Your task to perform on an android device: toggle airplane mode Image 0: 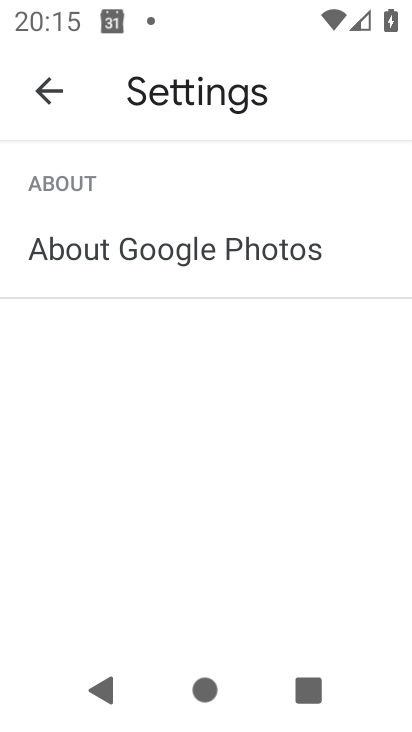
Step 0: press home button
Your task to perform on an android device: toggle airplane mode Image 1: 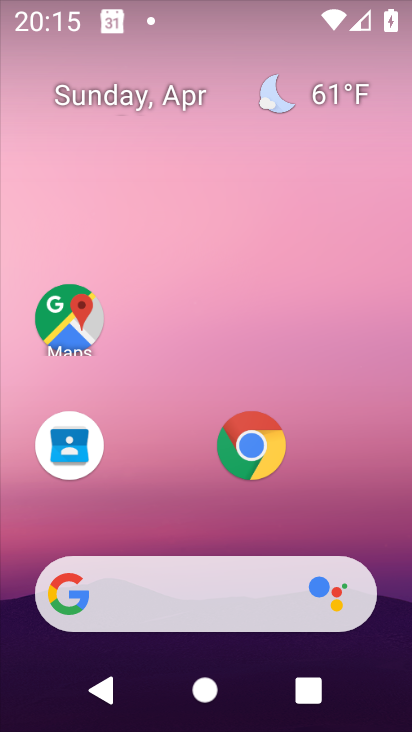
Step 1: drag from (190, 512) to (228, 39)
Your task to perform on an android device: toggle airplane mode Image 2: 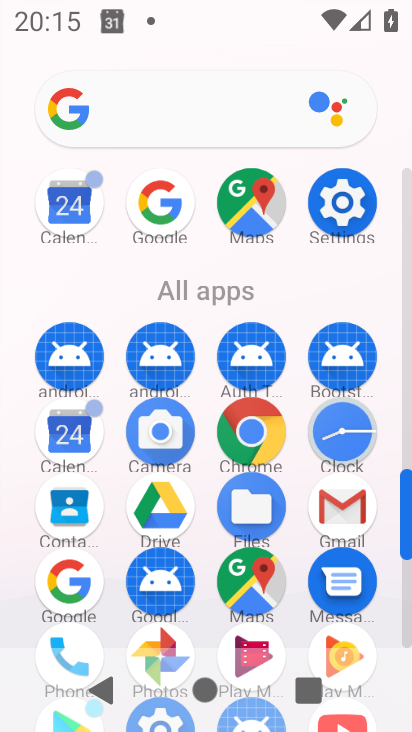
Step 2: click (333, 179)
Your task to perform on an android device: toggle airplane mode Image 3: 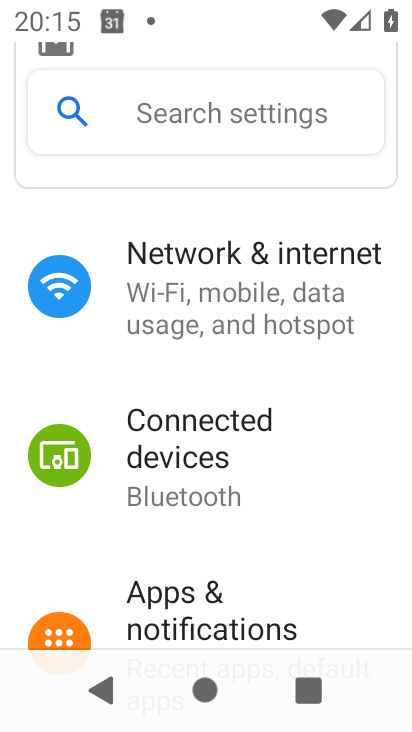
Step 3: click (133, 283)
Your task to perform on an android device: toggle airplane mode Image 4: 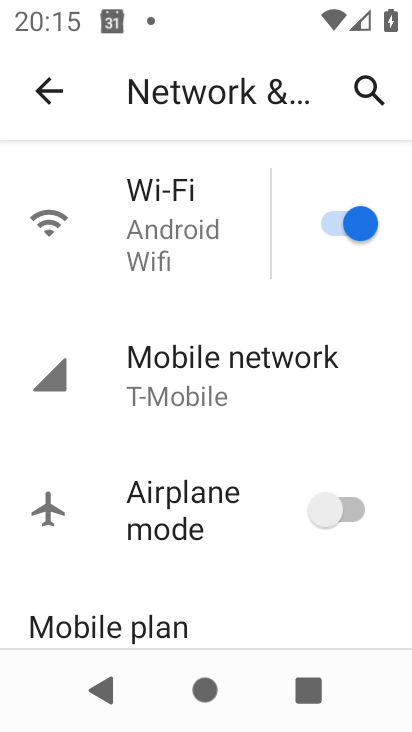
Step 4: click (348, 488)
Your task to perform on an android device: toggle airplane mode Image 5: 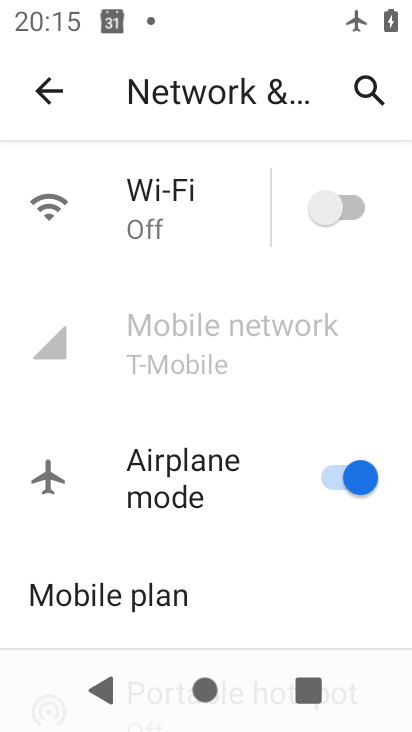
Step 5: task complete